Your task to perform on an android device: open chrome privacy settings Image 0: 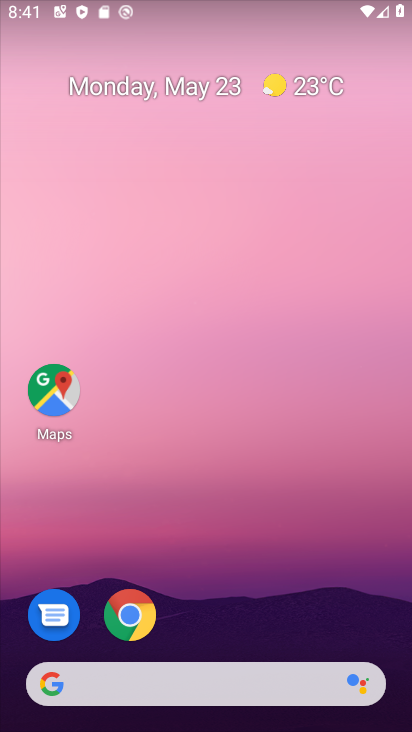
Step 0: click (132, 616)
Your task to perform on an android device: open chrome privacy settings Image 1: 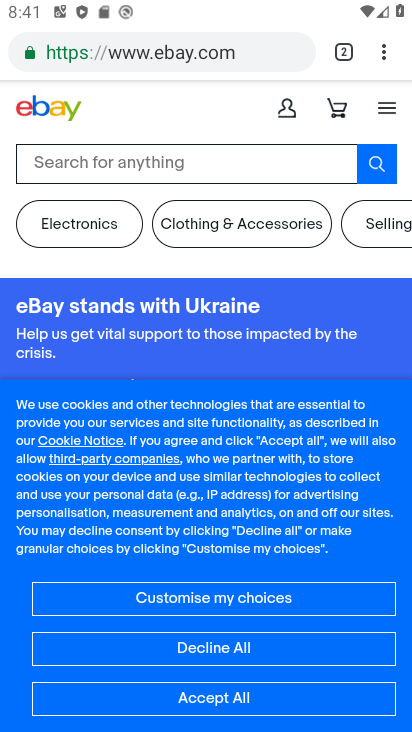
Step 1: click (384, 55)
Your task to perform on an android device: open chrome privacy settings Image 2: 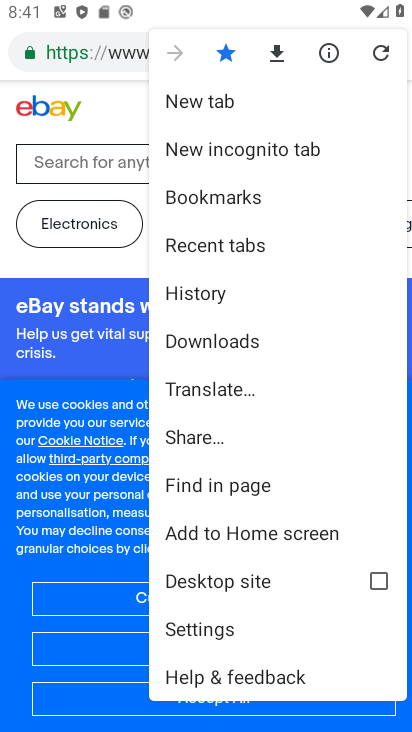
Step 2: click (207, 635)
Your task to perform on an android device: open chrome privacy settings Image 3: 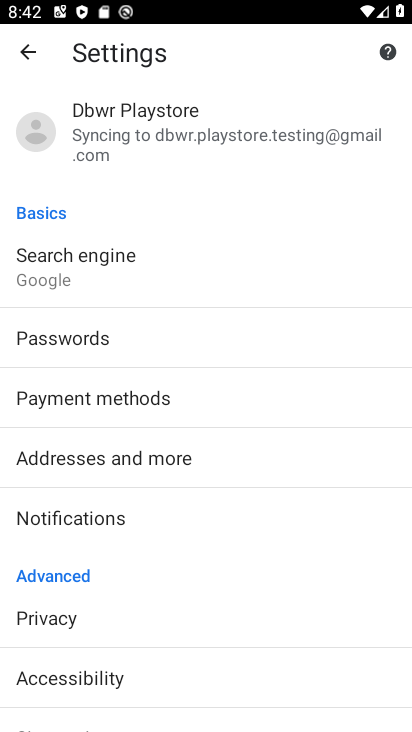
Step 3: click (74, 618)
Your task to perform on an android device: open chrome privacy settings Image 4: 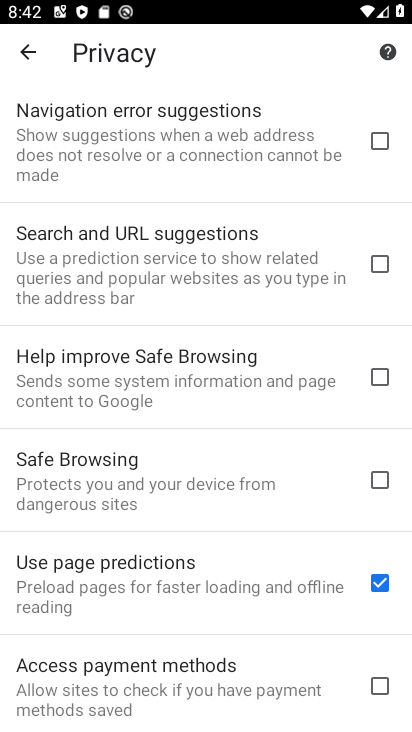
Step 4: task complete